Your task to perform on an android device: add a contact in the contacts app Image 0: 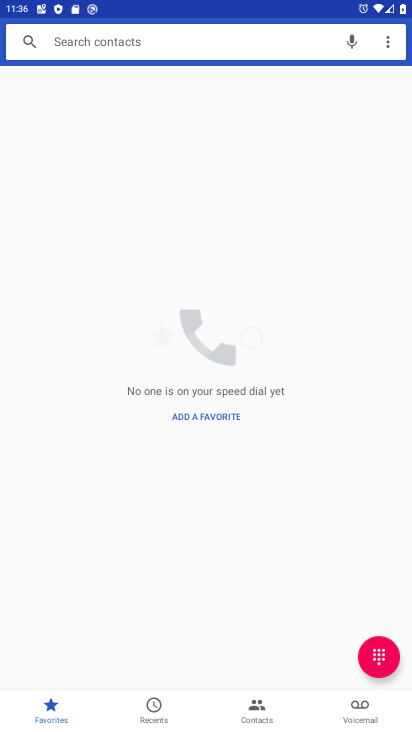
Step 0: press home button
Your task to perform on an android device: add a contact in the contacts app Image 1: 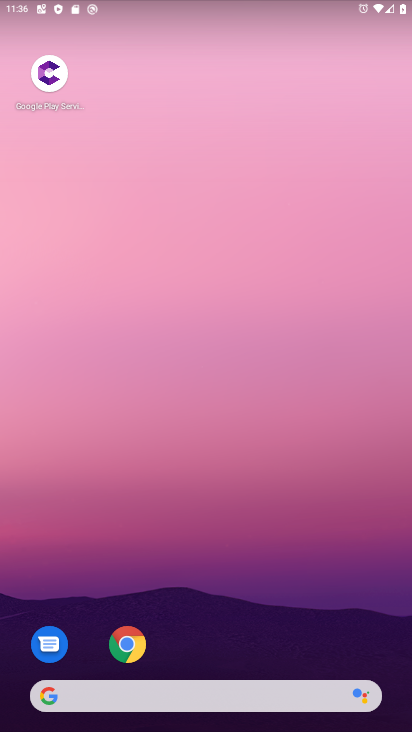
Step 1: drag from (249, 642) to (250, 121)
Your task to perform on an android device: add a contact in the contacts app Image 2: 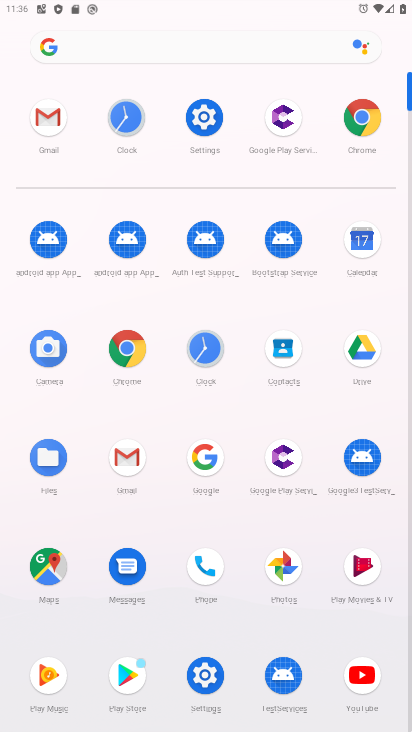
Step 2: click (284, 349)
Your task to perform on an android device: add a contact in the contacts app Image 3: 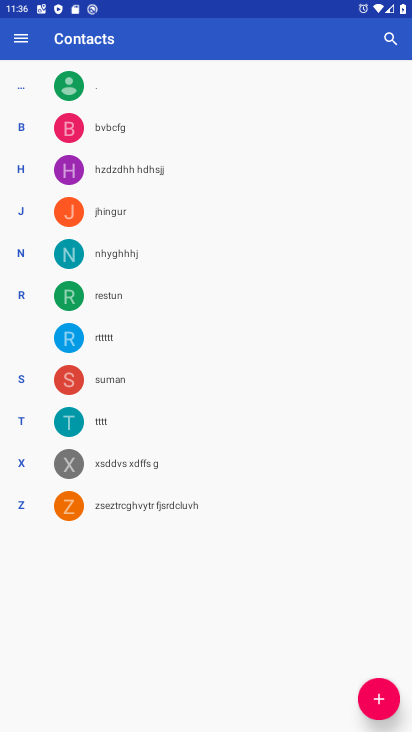
Step 3: click (370, 699)
Your task to perform on an android device: add a contact in the contacts app Image 4: 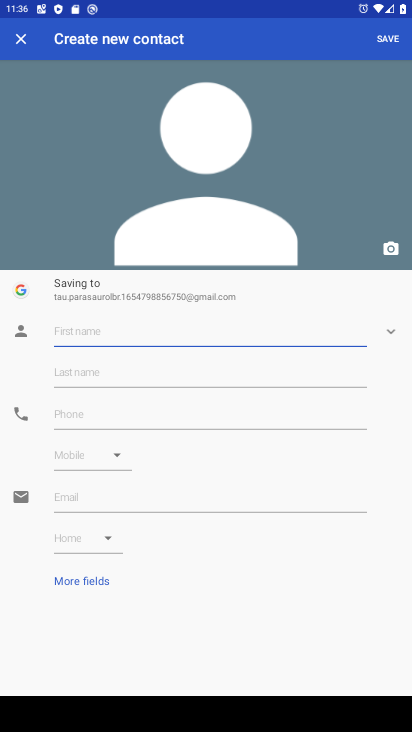
Step 4: type "landing"
Your task to perform on an android device: add a contact in the contacts app Image 5: 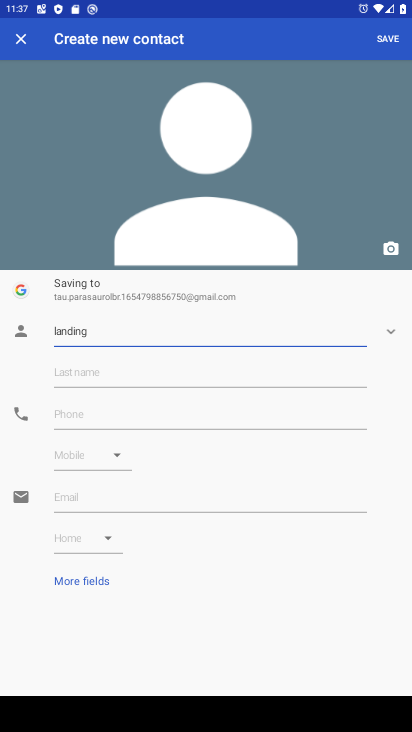
Step 5: click (391, 34)
Your task to perform on an android device: add a contact in the contacts app Image 6: 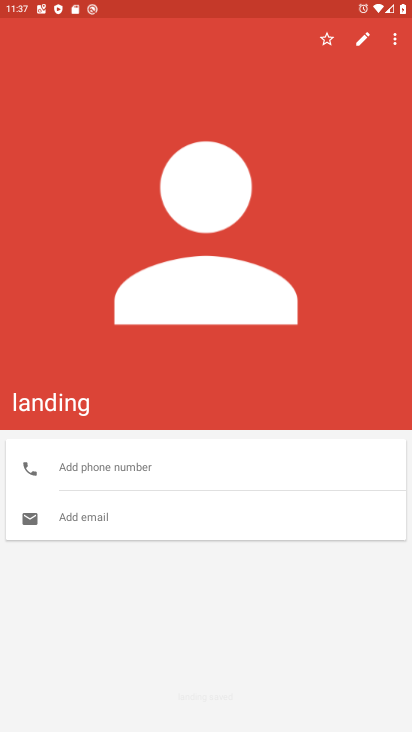
Step 6: task complete